Your task to perform on an android device: set an alarm Image 0: 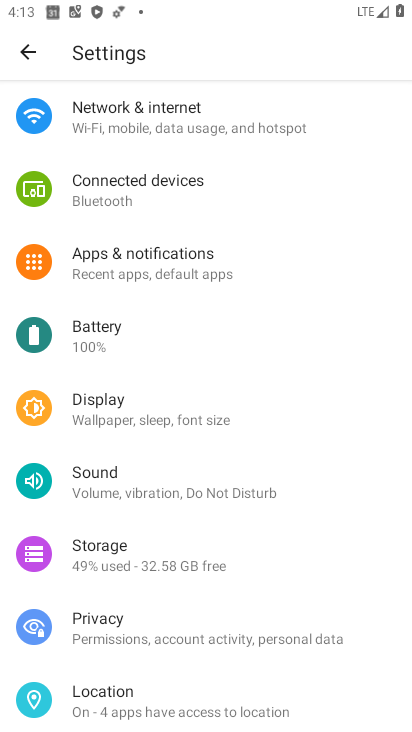
Step 0: press home button
Your task to perform on an android device: set an alarm Image 1: 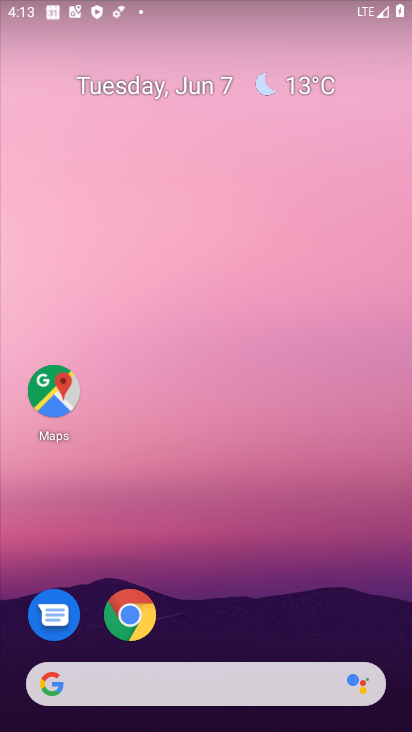
Step 1: drag from (180, 717) to (179, 278)
Your task to perform on an android device: set an alarm Image 2: 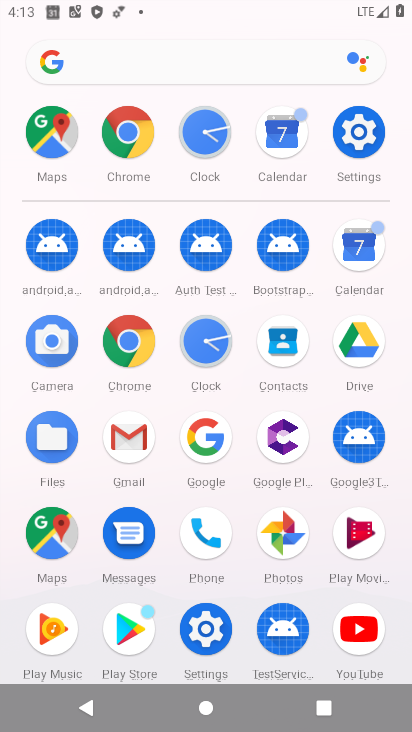
Step 2: click (210, 344)
Your task to perform on an android device: set an alarm Image 3: 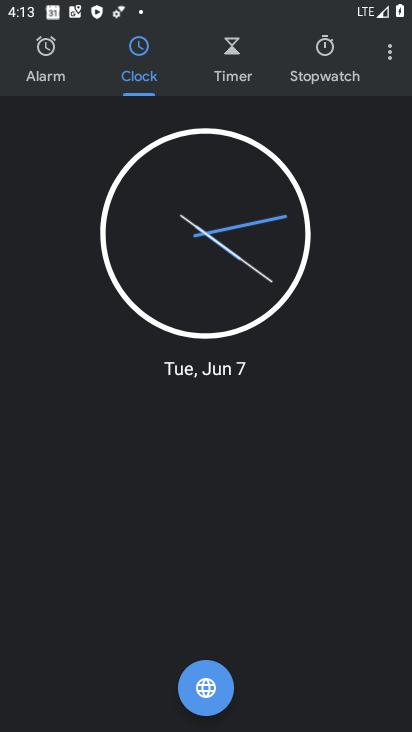
Step 3: click (44, 67)
Your task to perform on an android device: set an alarm Image 4: 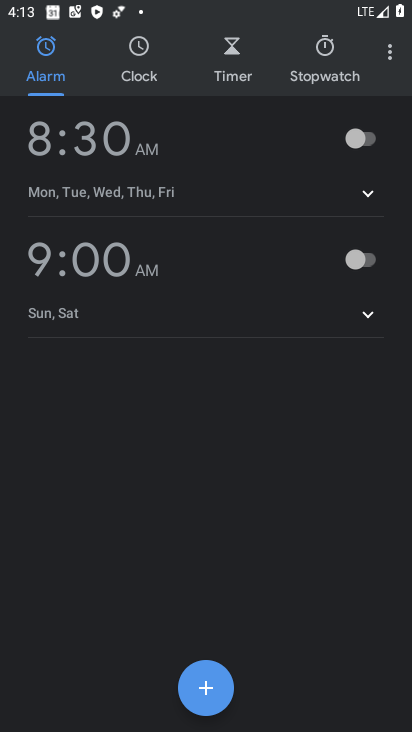
Step 4: click (206, 687)
Your task to perform on an android device: set an alarm Image 5: 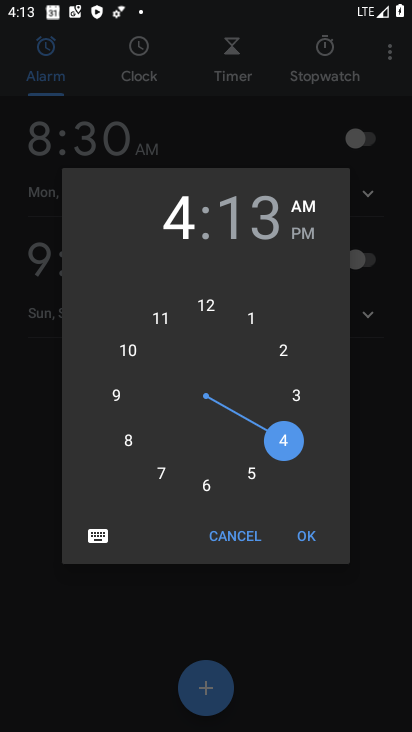
Step 5: click (133, 349)
Your task to perform on an android device: set an alarm Image 6: 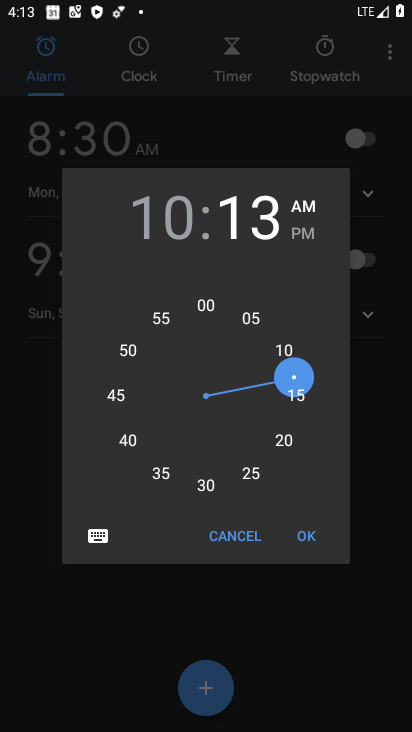
Step 6: click (157, 464)
Your task to perform on an android device: set an alarm Image 7: 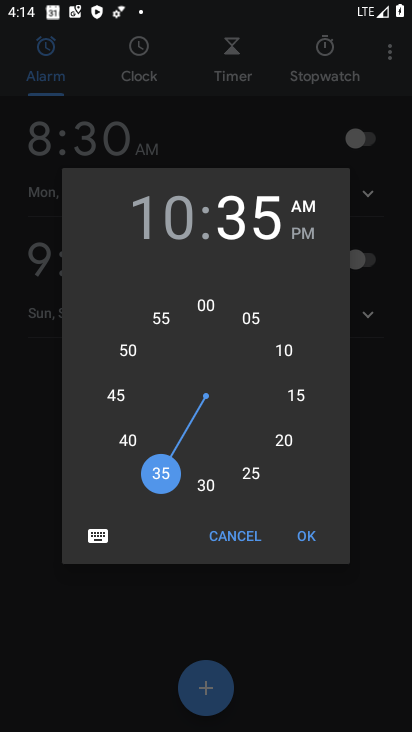
Step 7: click (310, 528)
Your task to perform on an android device: set an alarm Image 8: 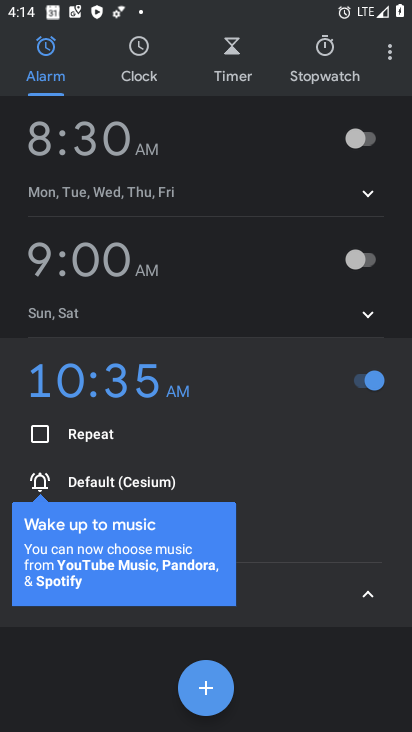
Step 8: task complete